Your task to perform on an android device: Open display settings Image 0: 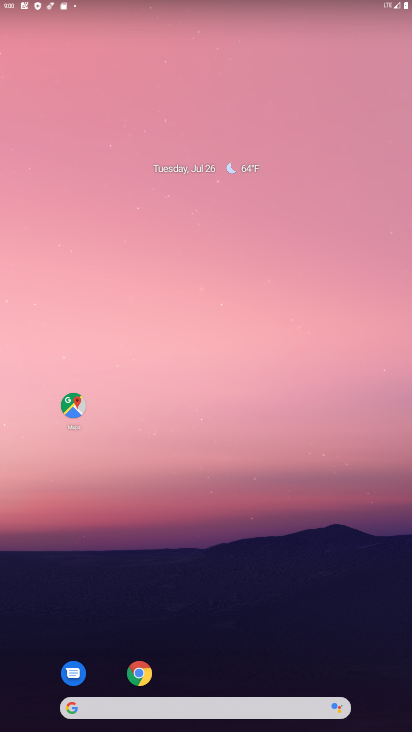
Step 0: drag from (222, 699) to (310, 176)
Your task to perform on an android device: Open display settings Image 1: 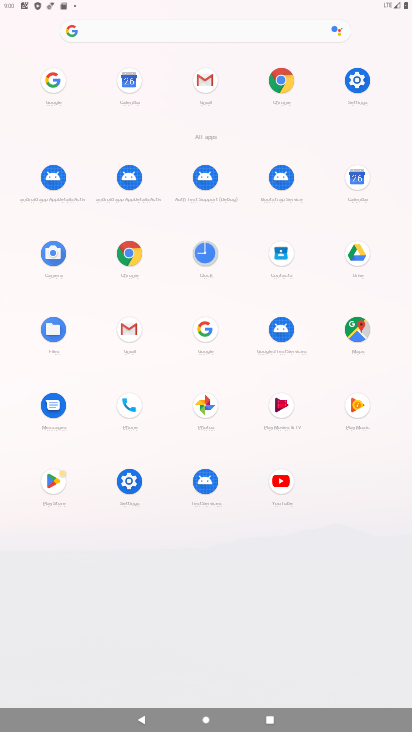
Step 1: click (358, 74)
Your task to perform on an android device: Open display settings Image 2: 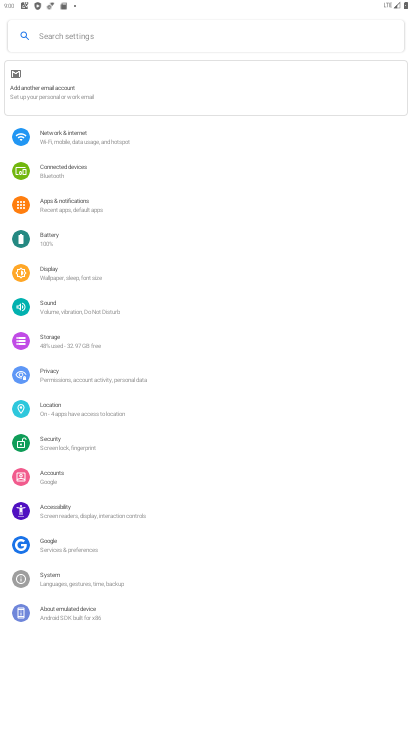
Step 2: click (46, 268)
Your task to perform on an android device: Open display settings Image 3: 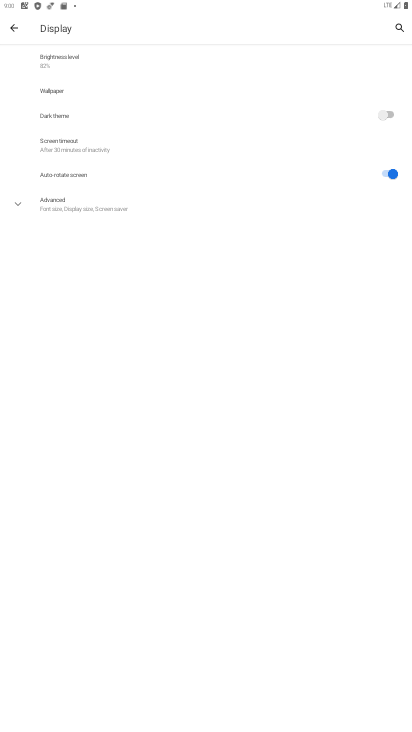
Step 3: task complete